Your task to perform on an android device: Go to accessibility settings Image 0: 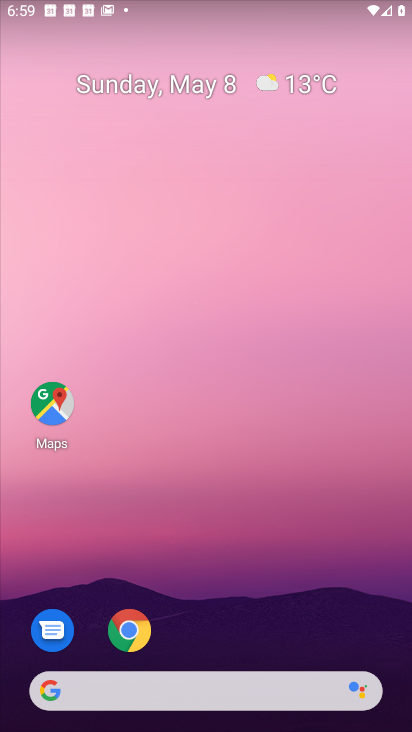
Step 0: drag from (261, 591) to (173, 116)
Your task to perform on an android device: Go to accessibility settings Image 1: 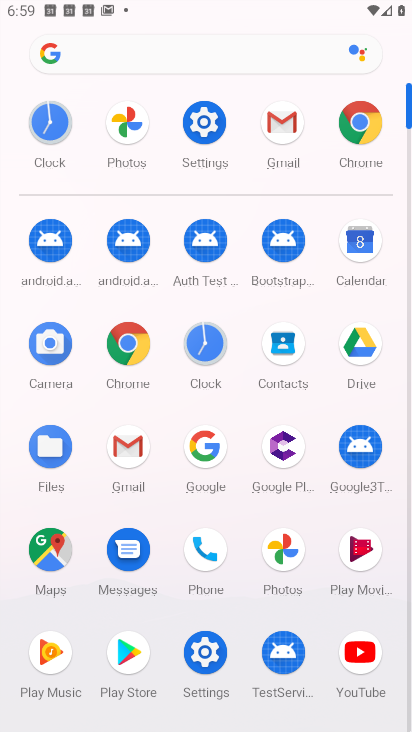
Step 1: click (205, 122)
Your task to perform on an android device: Go to accessibility settings Image 2: 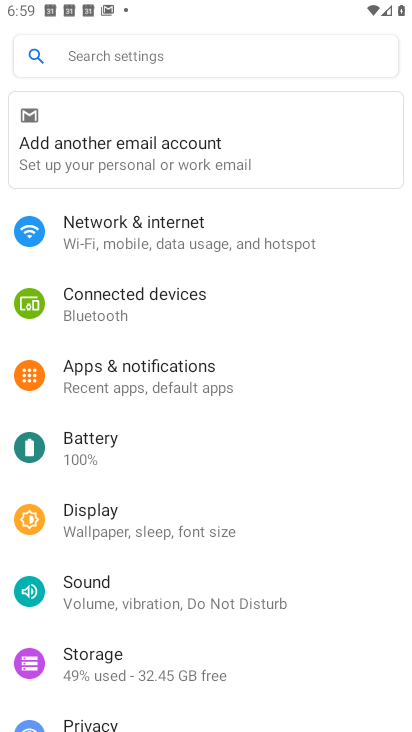
Step 2: drag from (199, 639) to (164, 334)
Your task to perform on an android device: Go to accessibility settings Image 3: 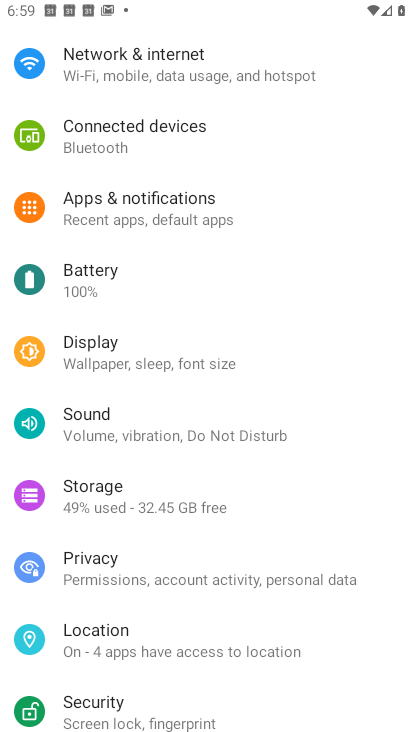
Step 3: drag from (214, 477) to (199, 197)
Your task to perform on an android device: Go to accessibility settings Image 4: 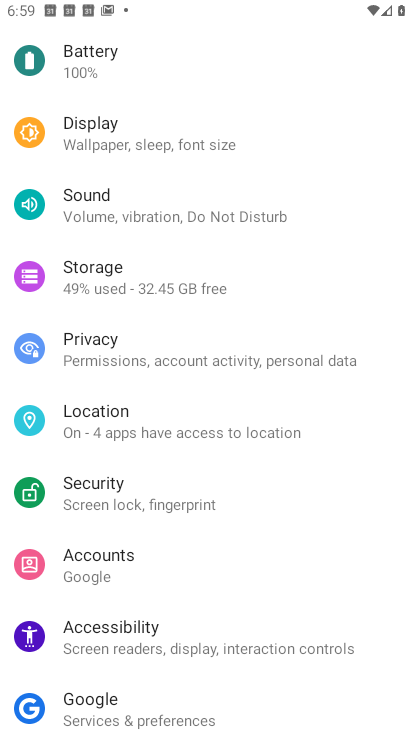
Step 4: click (112, 632)
Your task to perform on an android device: Go to accessibility settings Image 5: 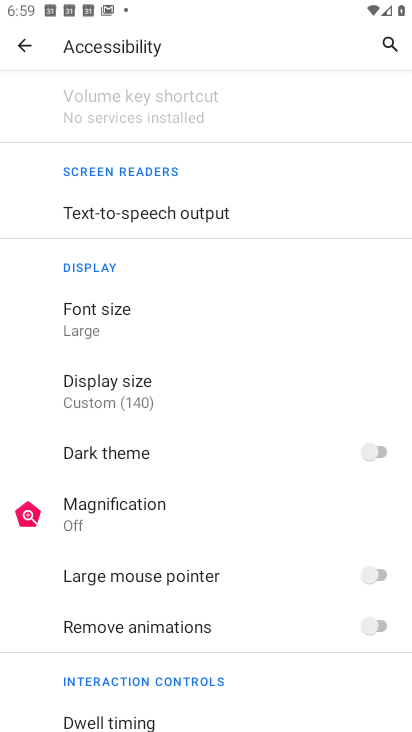
Step 5: task complete